Your task to perform on an android device: Open calendar and show me the fourth week of next month Image 0: 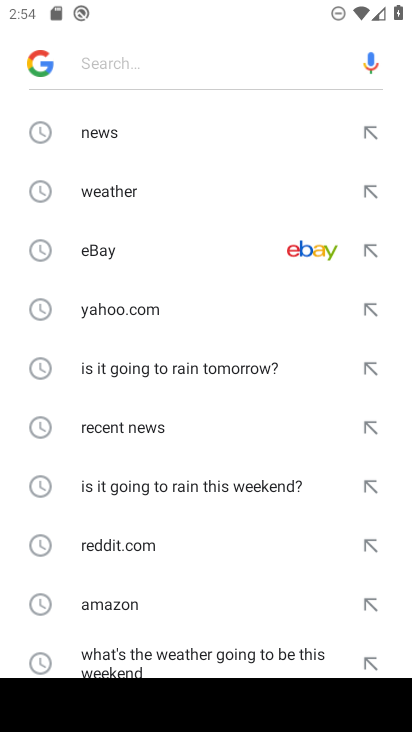
Step 0: press home button
Your task to perform on an android device: Open calendar and show me the fourth week of next month Image 1: 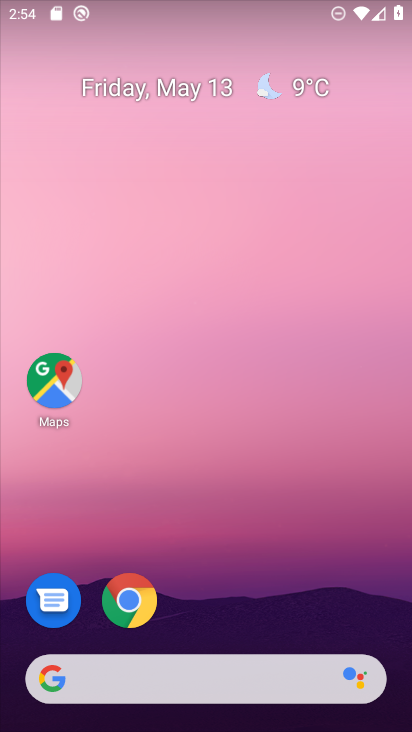
Step 1: drag from (177, 657) to (273, 186)
Your task to perform on an android device: Open calendar and show me the fourth week of next month Image 2: 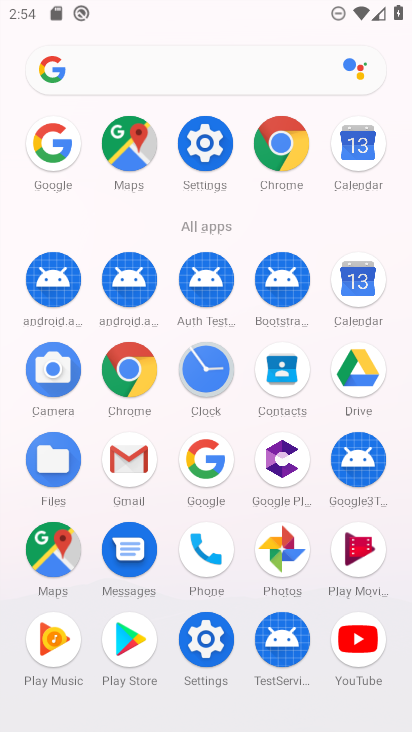
Step 2: click (347, 282)
Your task to perform on an android device: Open calendar and show me the fourth week of next month Image 3: 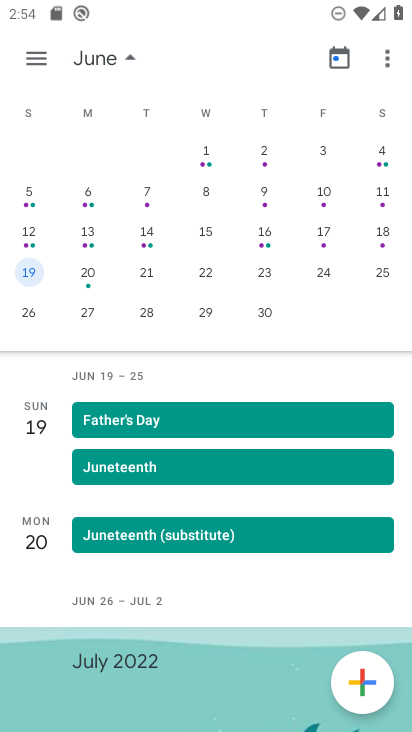
Step 3: task complete